Your task to perform on an android device: turn off wifi Image 0: 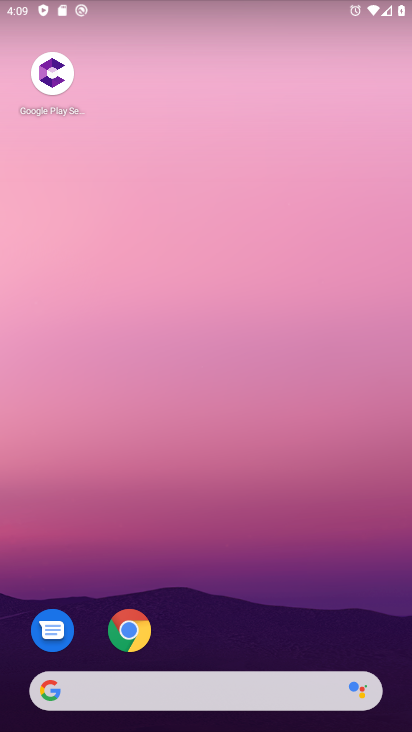
Step 0: drag from (255, 643) to (229, 368)
Your task to perform on an android device: turn off wifi Image 1: 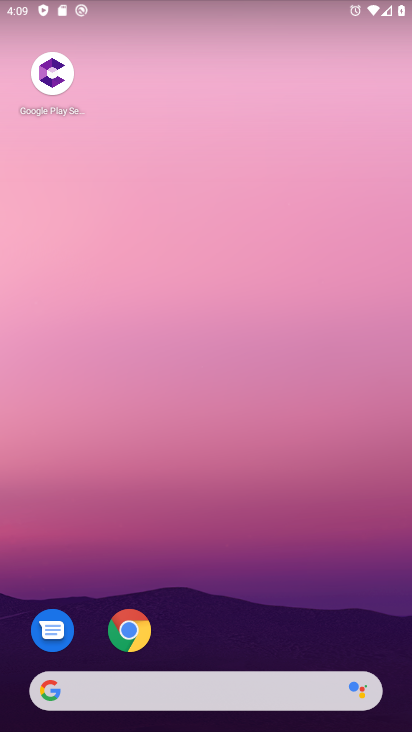
Step 1: drag from (230, 675) to (160, 262)
Your task to perform on an android device: turn off wifi Image 2: 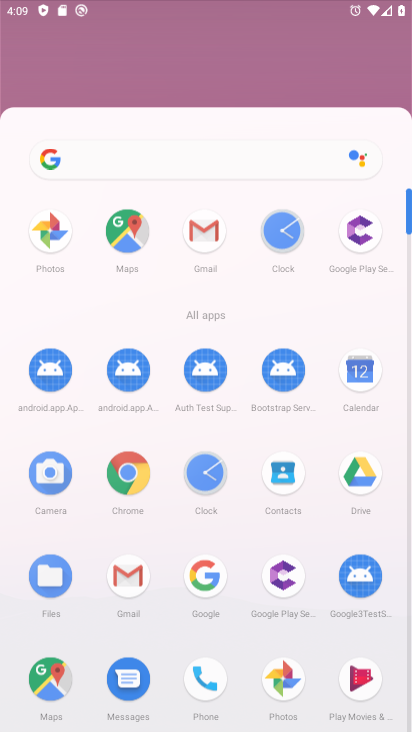
Step 2: drag from (189, 704) to (191, 300)
Your task to perform on an android device: turn off wifi Image 3: 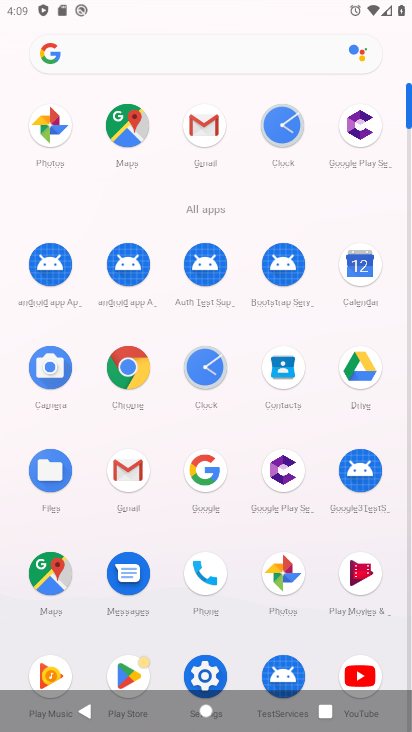
Step 3: drag from (251, 637) to (251, 364)
Your task to perform on an android device: turn off wifi Image 4: 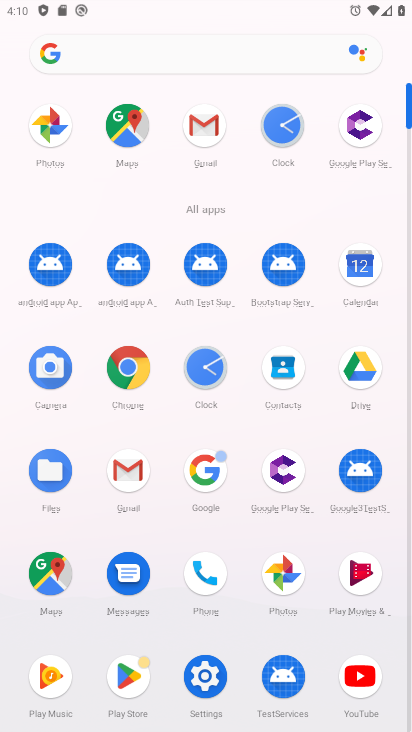
Step 4: click (206, 677)
Your task to perform on an android device: turn off wifi Image 5: 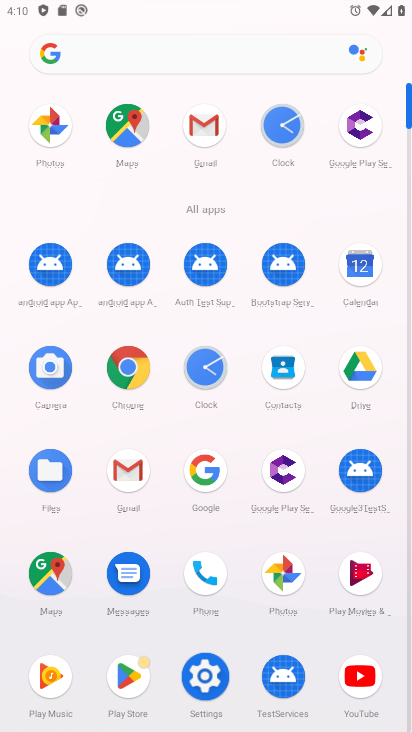
Step 5: click (207, 676)
Your task to perform on an android device: turn off wifi Image 6: 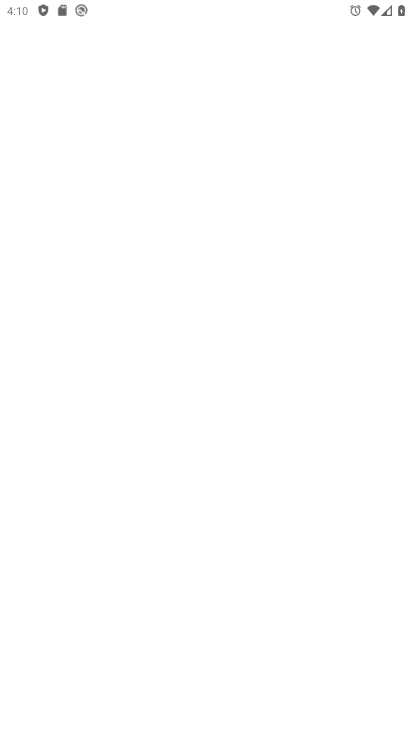
Step 6: click (209, 676)
Your task to perform on an android device: turn off wifi Image 7: 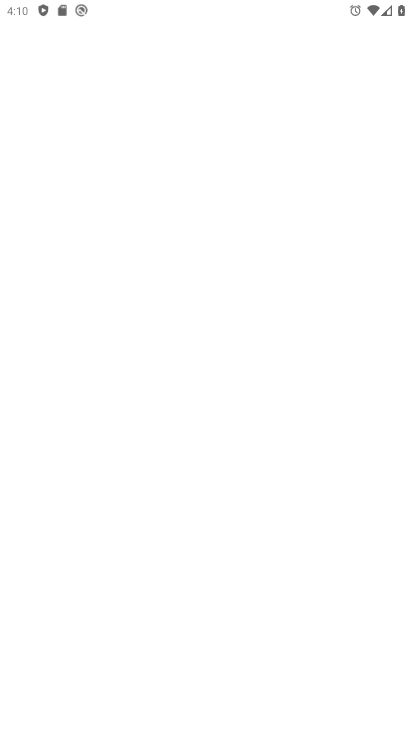
Step 7: click (210, 675)
Your task to perform on an android device: turn off wifi Image 8: 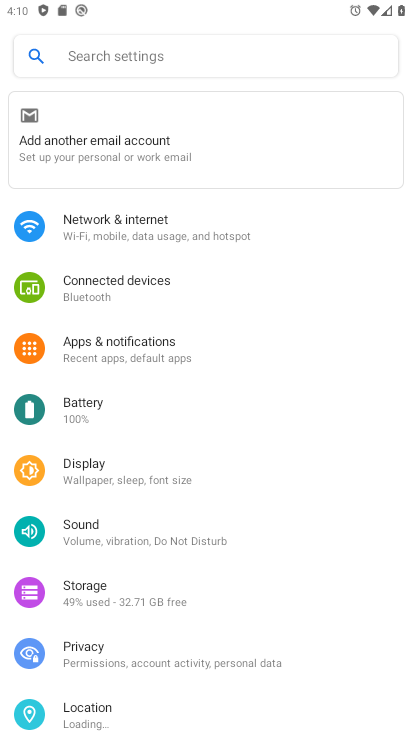
Step 8: click (125, 248)
Your task to perform on an android device: turn off wifi Image 9: 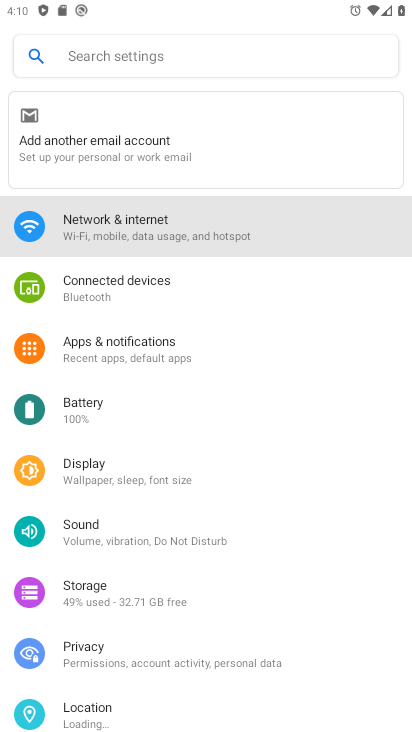
Step 9: click (136, 245)
Your task to perform on an android device: turn off wifi Image 10: 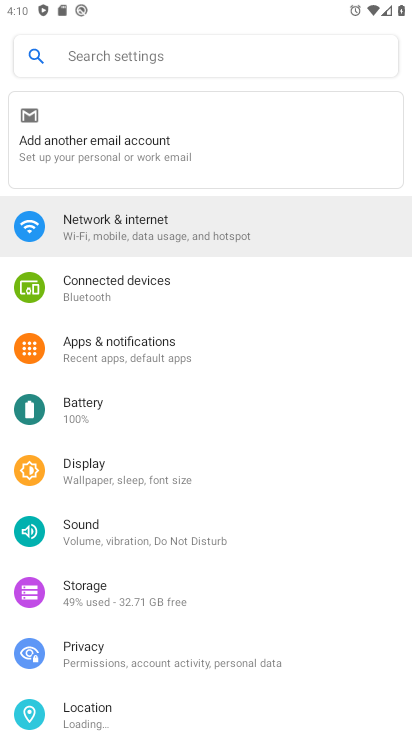
Step 10: click (137, 245)
Your task to perform on an android device: turn off wifi Image 11: 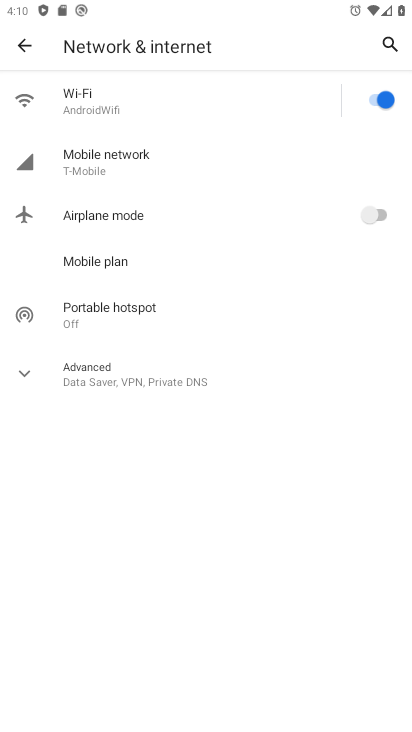
Step 11: click (388, 99)
Your task to perform on an android device: turn off wifi Image 12: 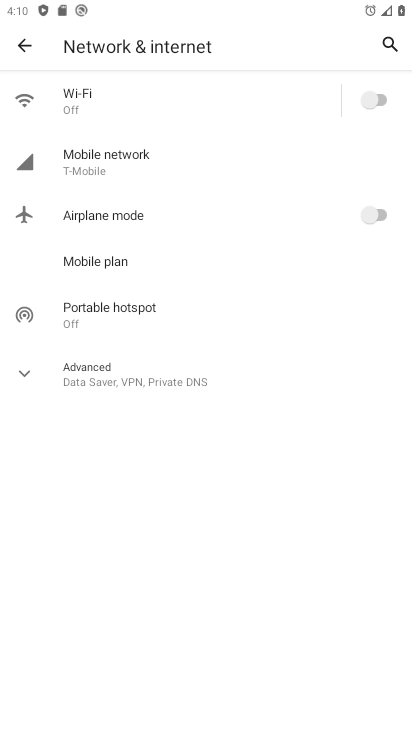
Step 12: task complete